Your task to perform on an android device: Do I have any events tomorrow? Image 0: 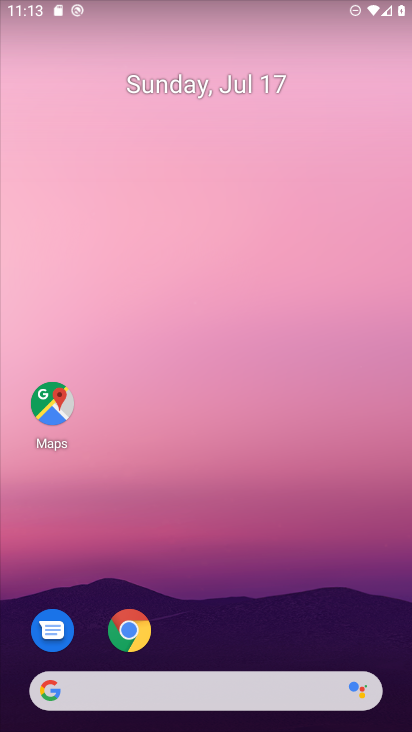
Step 0: press home button
Your task to perform on an android device: Do I have any events tomorrow? Image 1: 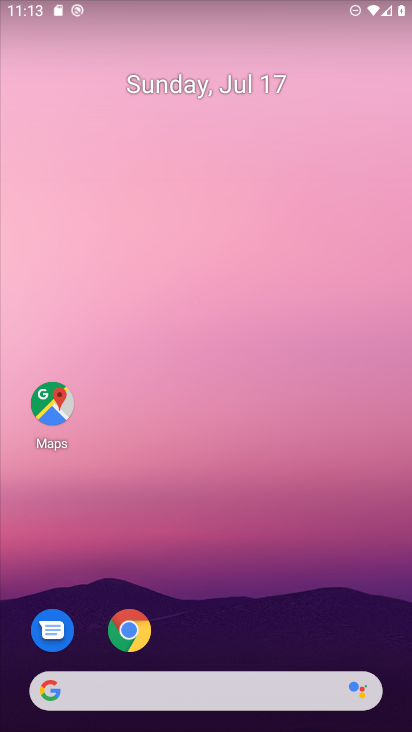
Step 1: click (201, 643)
Your task to perform on an android device: Do I have any events tomorrow? Image 2: 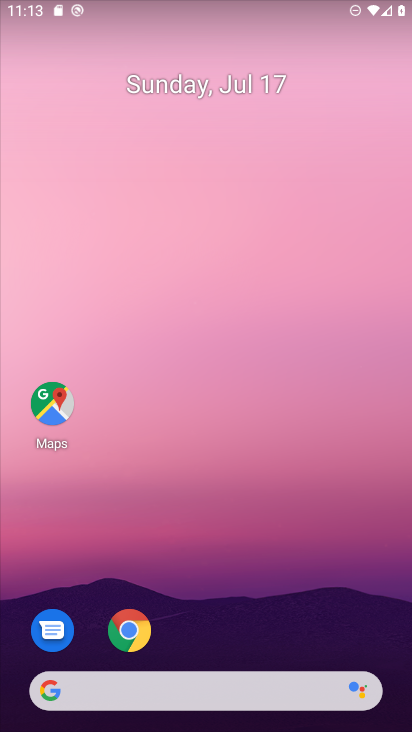
Step 2: drag from (206, 640) to (235, 311)
Your task to perform on an android device: Do I have any events tomorrow? Image 3: 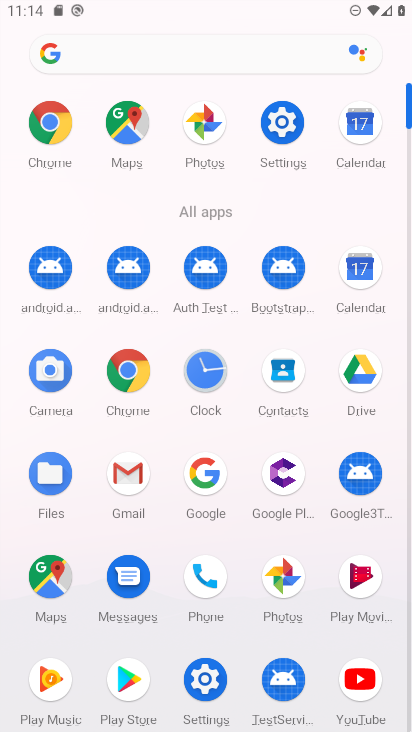
Step 3: click (347, 288)
Your task to perform on an android device: Do I have any events tomorrow? Image 4: 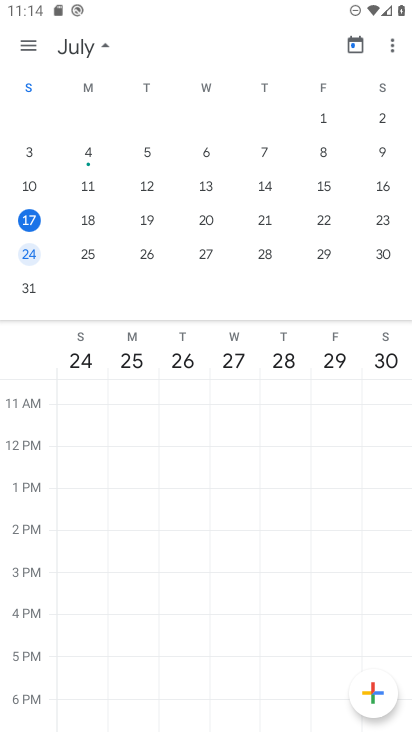
Step 4: click (95, 219)
Your task to perform on an android device: Do I have any events tomorrow? Image 5: 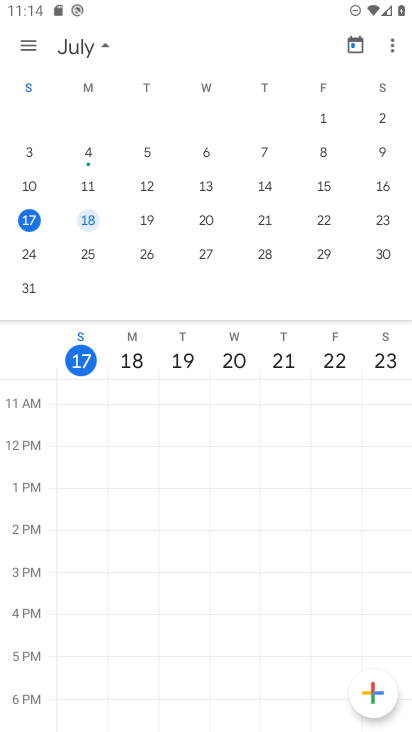
Step 5: task complete